Your task to perform on an android device: toggle notification dots Image 0: 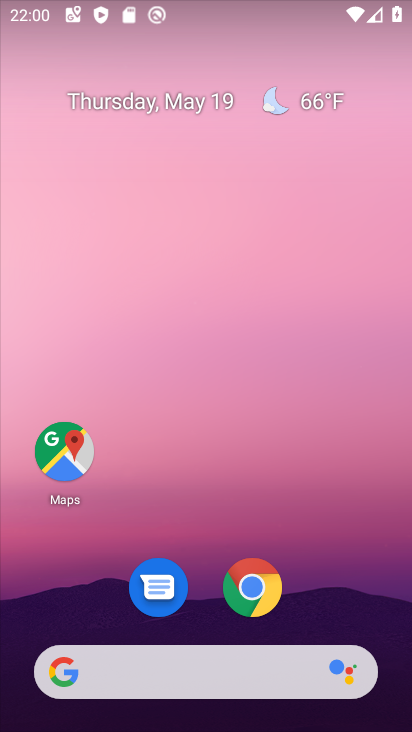
Step 0: drag from (240, 703) to (222, 253)
Your task to perform on an android device: toggle notification dots Image 1: 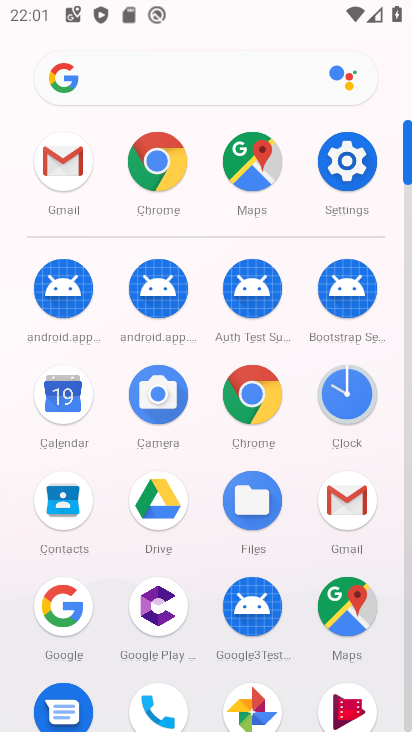
Step 1: click (331, 174)
Your task to perform on an android device: toggle notification dots Image 2: 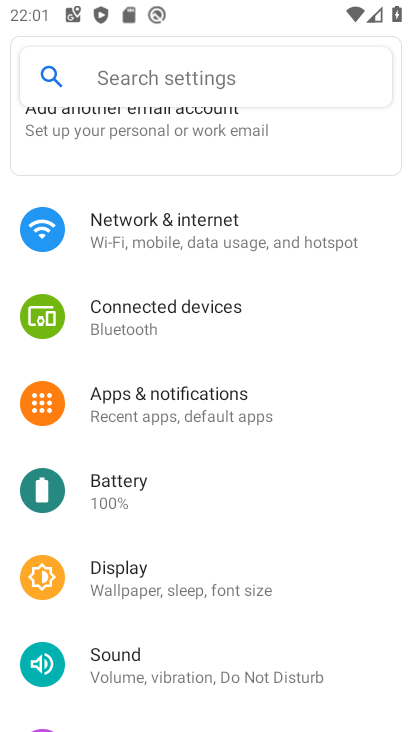
Step 2: click (141, 82)
Your task to perform on an android device: toggle notification dots Image 3: 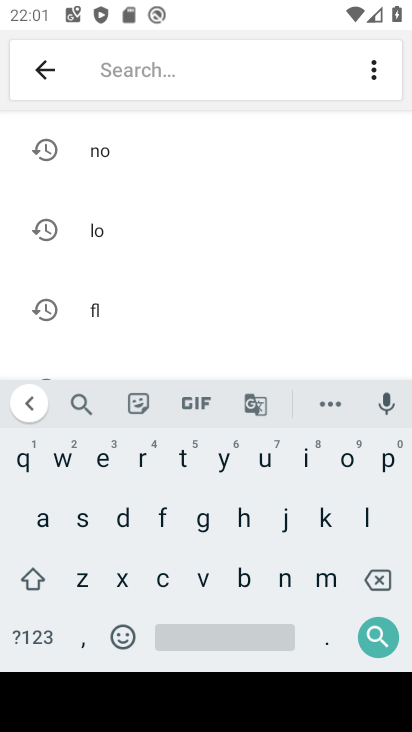
Step 3: click (113, 514)
Your task to perform on an android device: toggle notification dots Image 4: 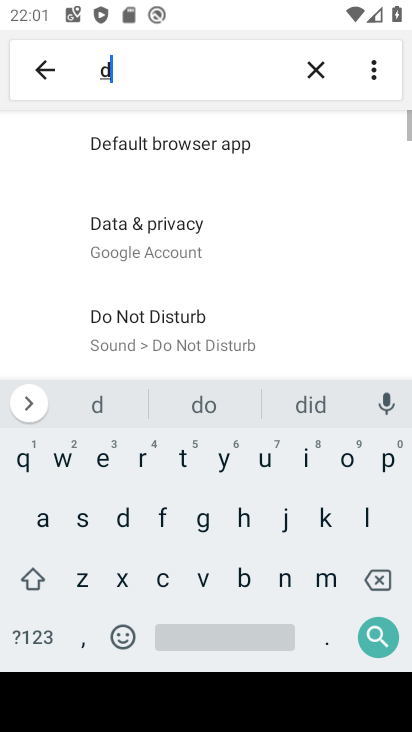
Step 4: click (337, 461)
Your task to perform on an android device: toggle notification dots Image 5: 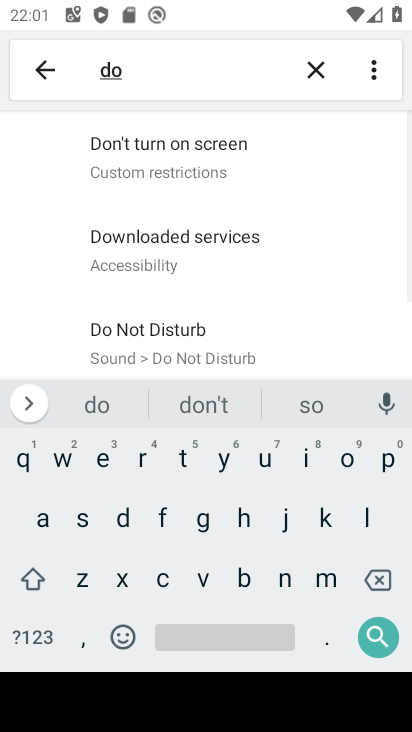
Step 5: click (186, 462)
Your task to perform on an android device: toggle notification dots Image 6: 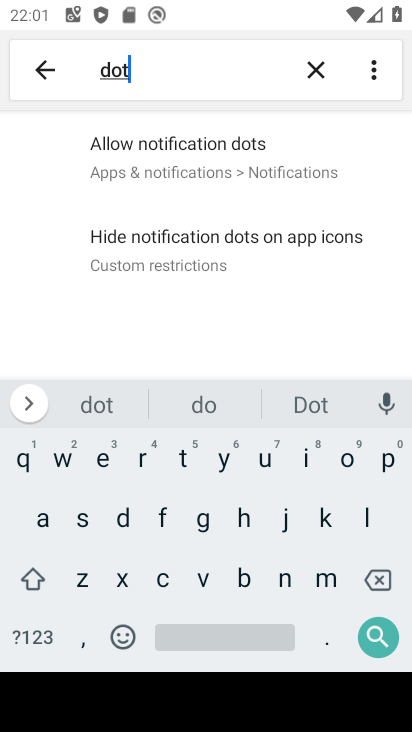
Step 6: click (213, 168)
Your task to perform on an android device: toggle notification dots Image 7: 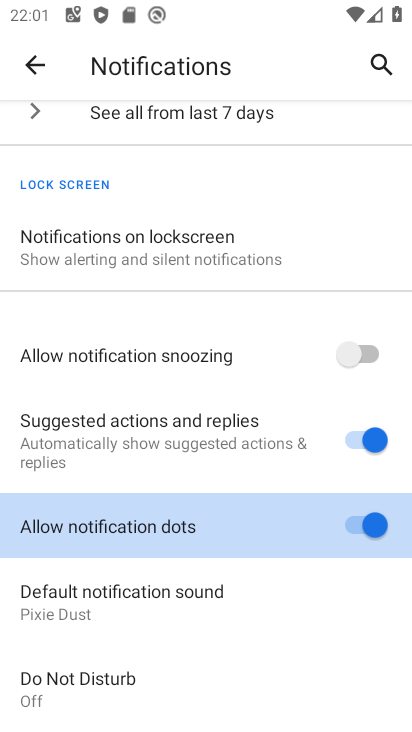
Step 7: click (323, 530)
Your task to perform on an android device: toggle notification dots Image 8: 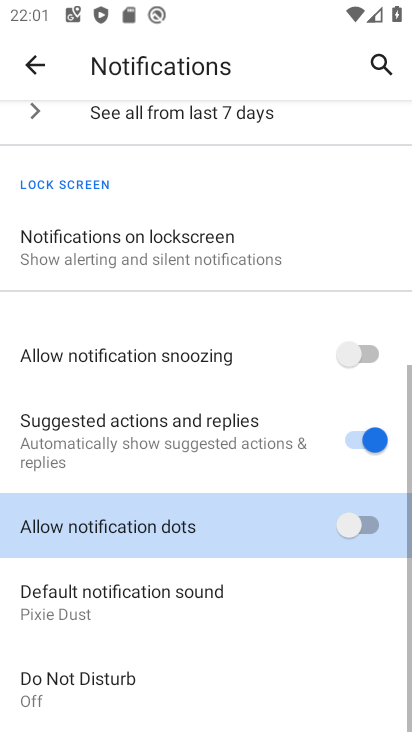
Step 8: click (323, 530)
Your task to perform on an android device: toggle notification dots Image 9: 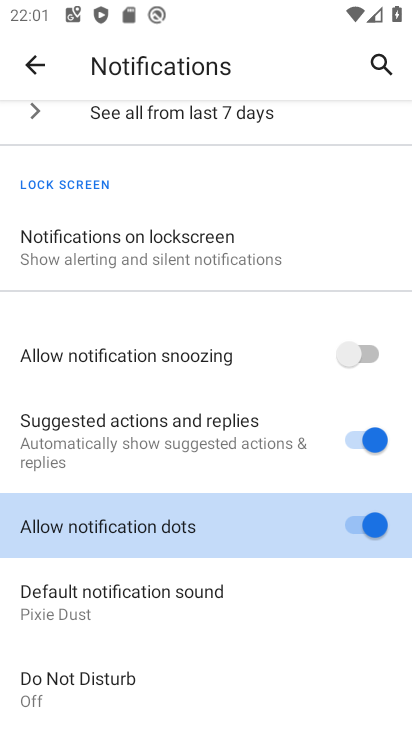
Step 9: task complete